Your task to perform on an android device: Go to Amazon Image 0: 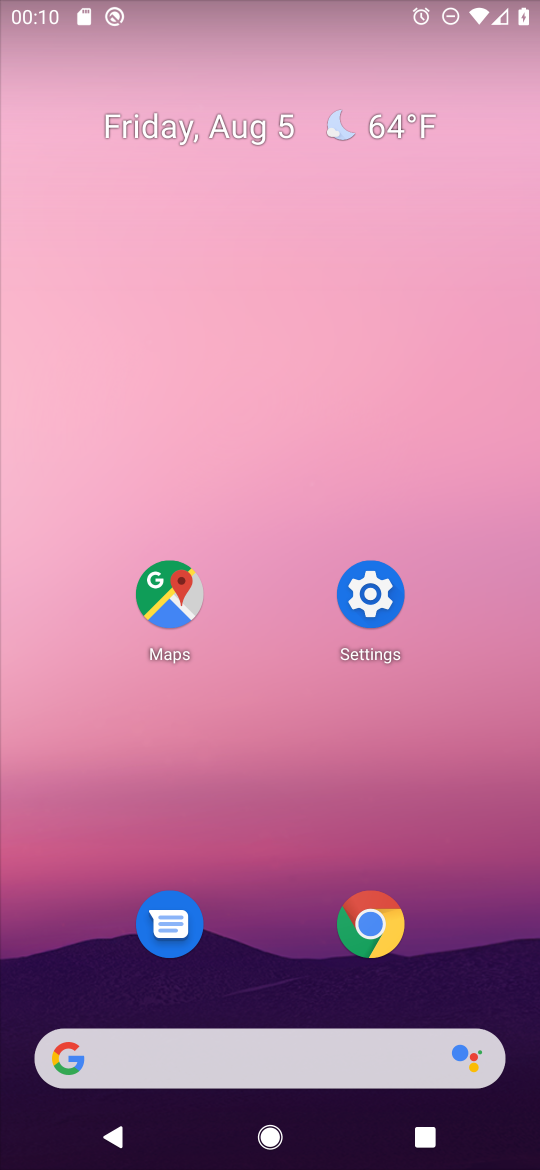
Step 0: press home button
Your task to perform on an android device: Go to Amazon Image 1: 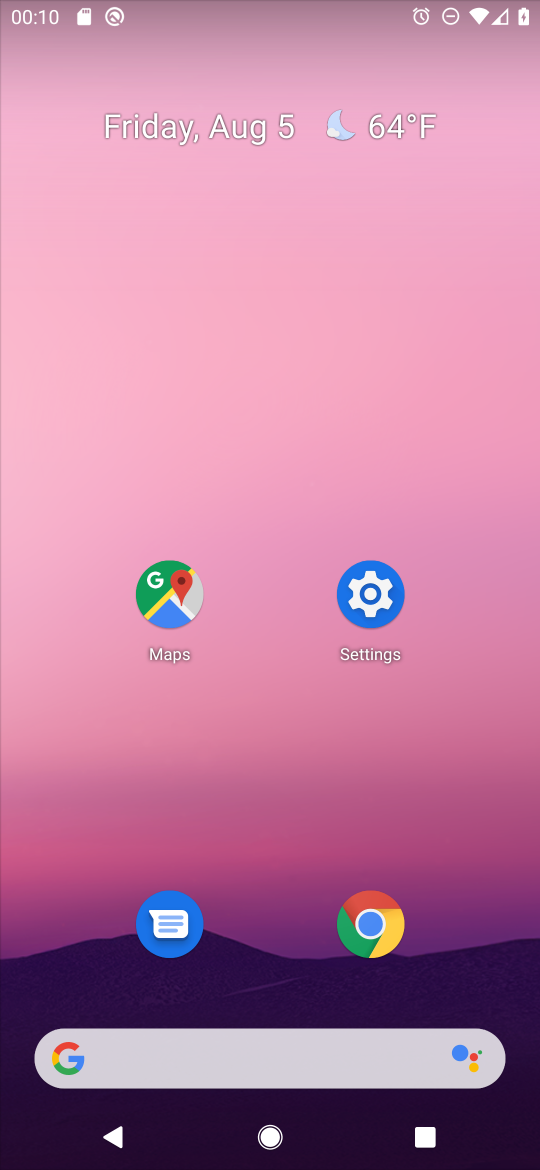
Step 1: click (401, 940)
Your task to perform on an android device: Go to Amazon Image 2: 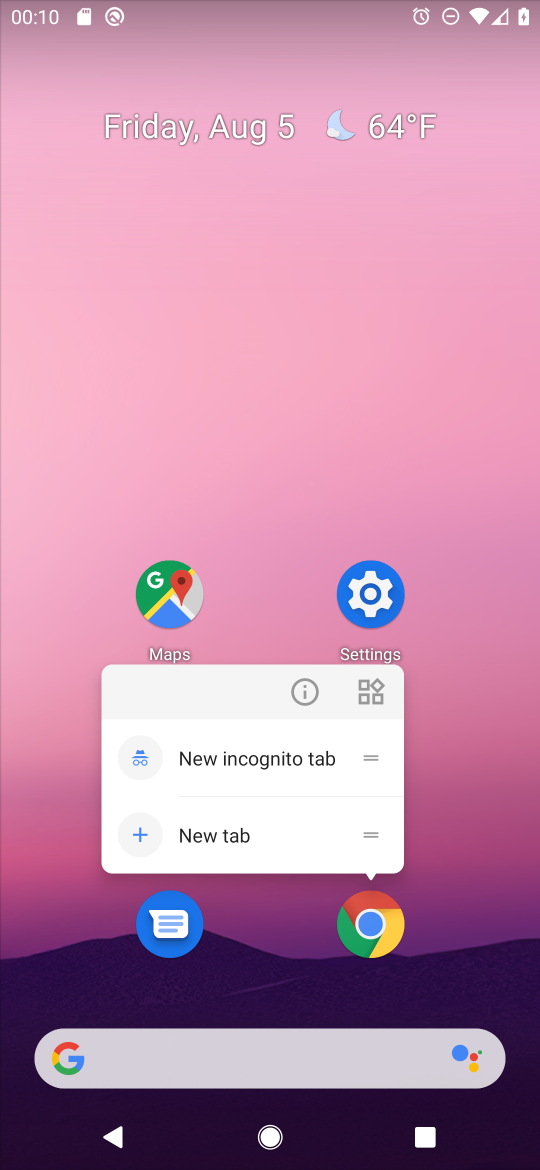
Step 2: click (386, 937)
Your task to perform on an android device: Go to Amazon Image 3: 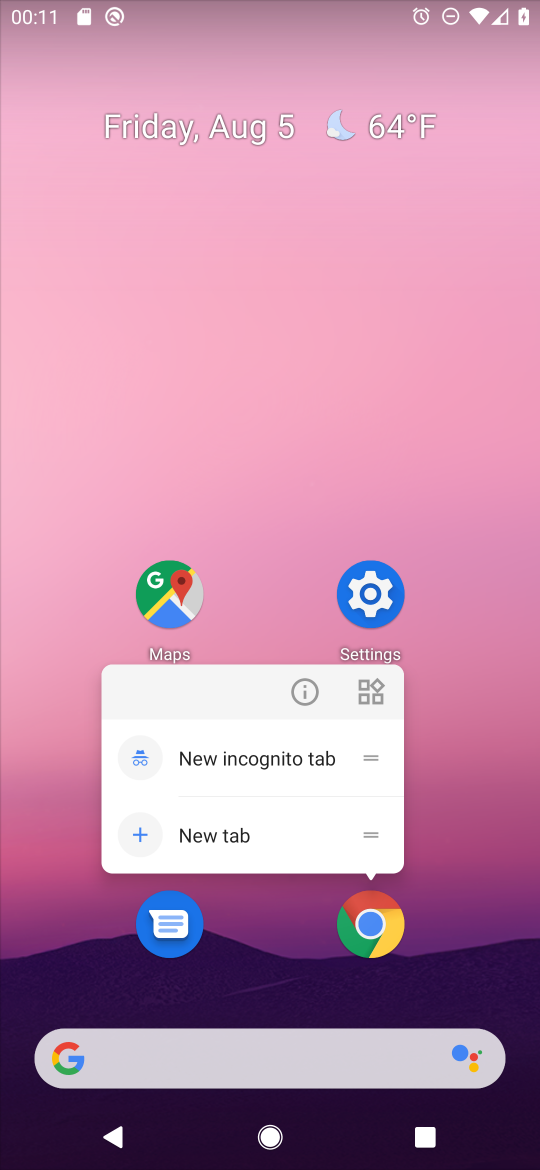
Step 3: click (377, 917)
Your task to perform on an android device: Go to Amazon Image 4: 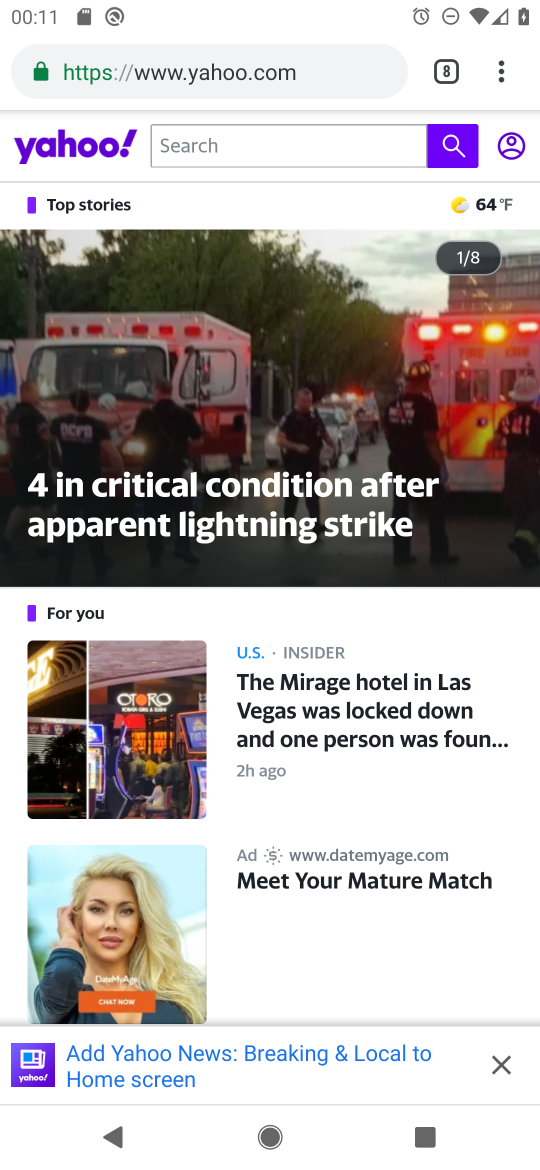
Step 4: drag from (507, 74) to (331, 142)
Your task to perform on an android device: Go to Amazon Image 5: 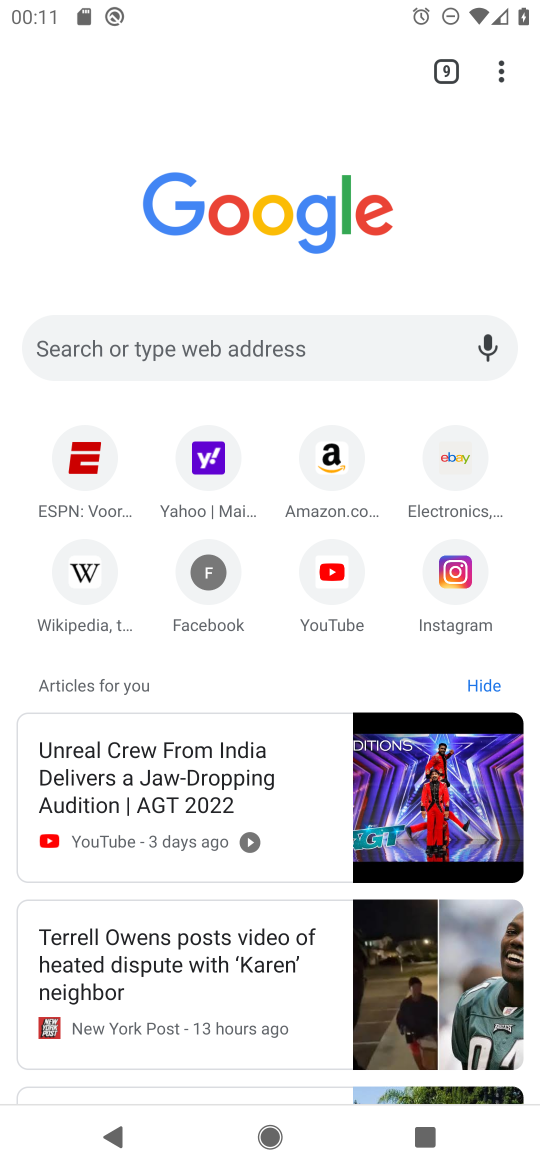
Step 5: click (336, 468)
Your task to perform on an android device: Go to Amazon Image 6: 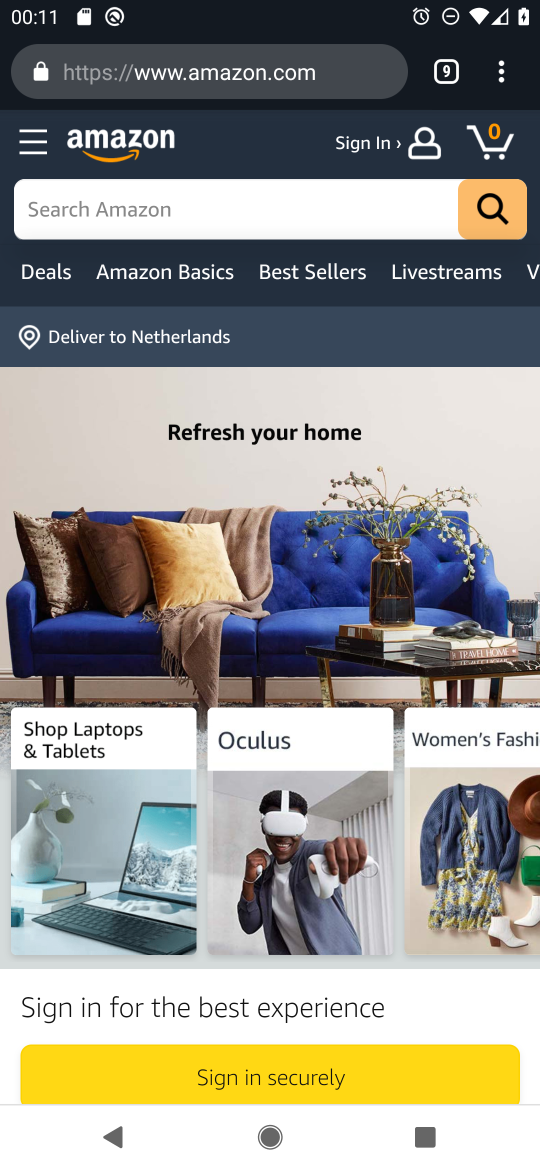
Step 6: task complete